Your task to perform on an android device: Do I have any events tomorrow? Image 0: 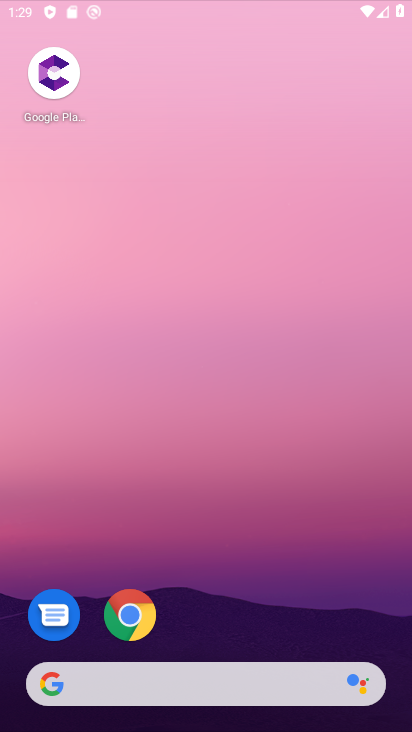
Step 0: click (51, 417)
Your task to perform on an android device: Do I have any events tomorrow? Image 1: 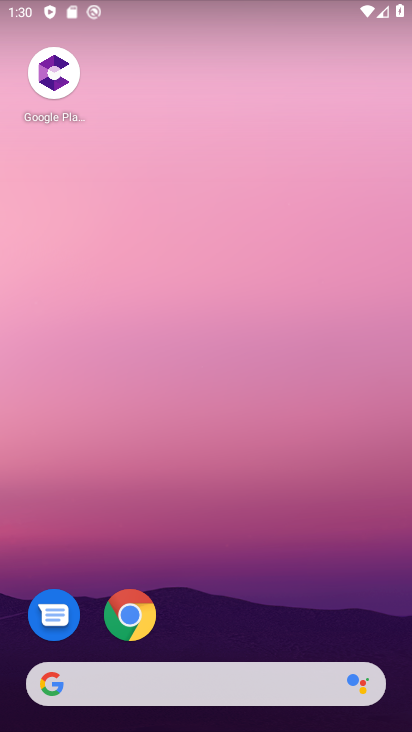
Step 1: drag from (212, 623) to (218, 135)
Your task to perform on an android device: Do I have any events tomorrow? Image 2: 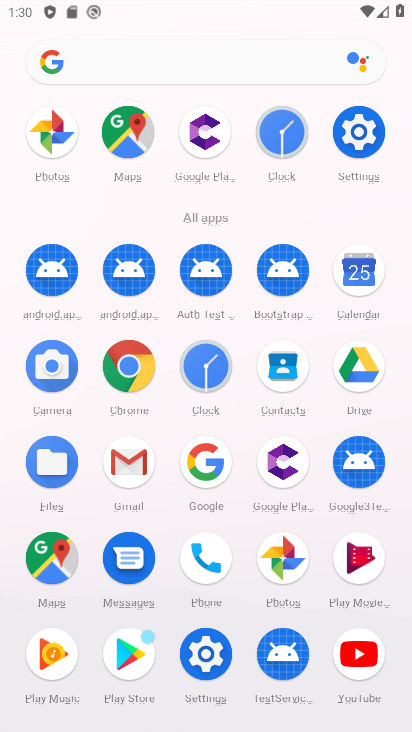
Step 2: click (366, 274)
Your task to perform on an android device: Do I have any events tomorrow? Image 3: 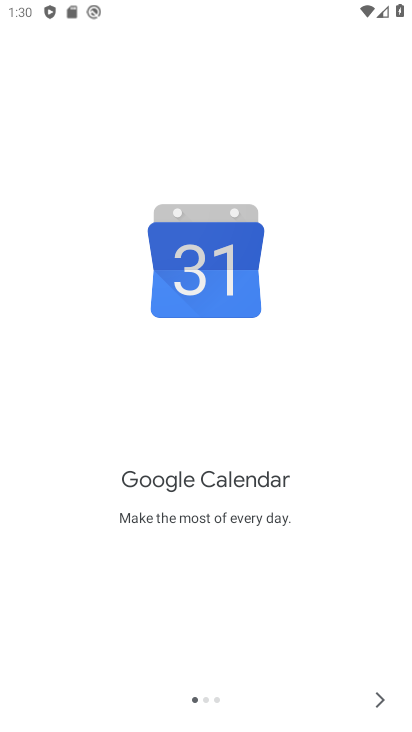
Step 3: click (379, 708)
Your task to perform on an android device: Do I have any events tomorrow? Image 4: 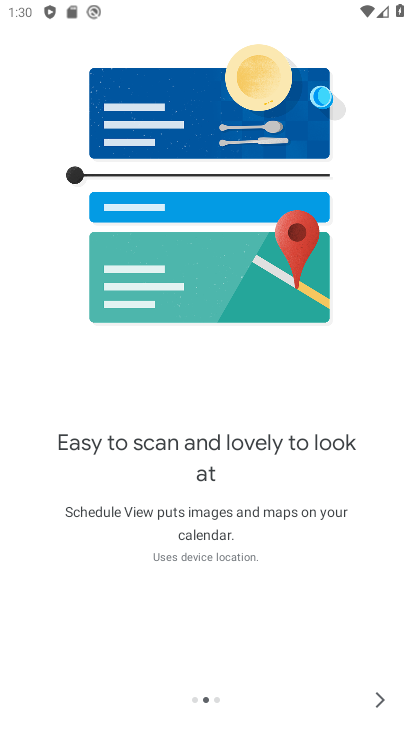
Step 4: click (379, 708)
Your task to perform on an android device: Do I have any events tomorrow? Image 5: 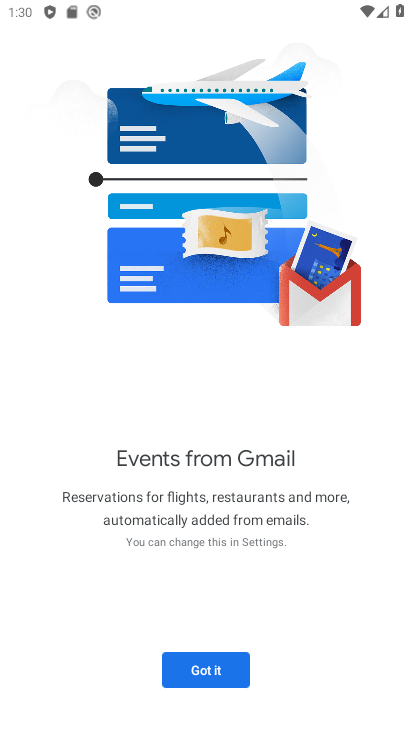
Step 5: click (218, 681)
Your task to perform on an android device: Do I have any events tomorrow? Image 6: 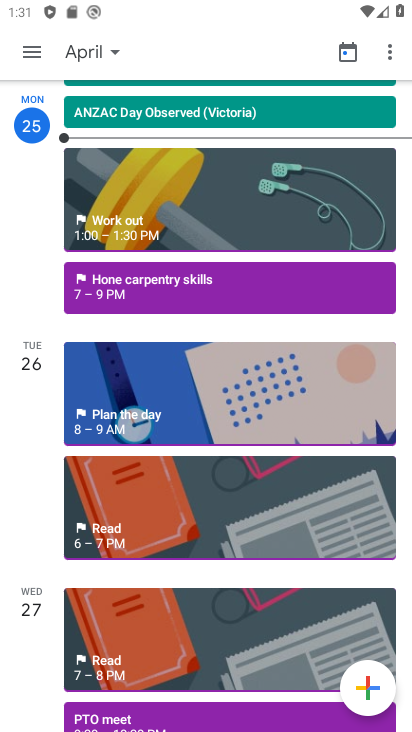
Step 6: click (20, 51)
Your task to perform on an android device: Do I have any events tomorrow? Image 7: 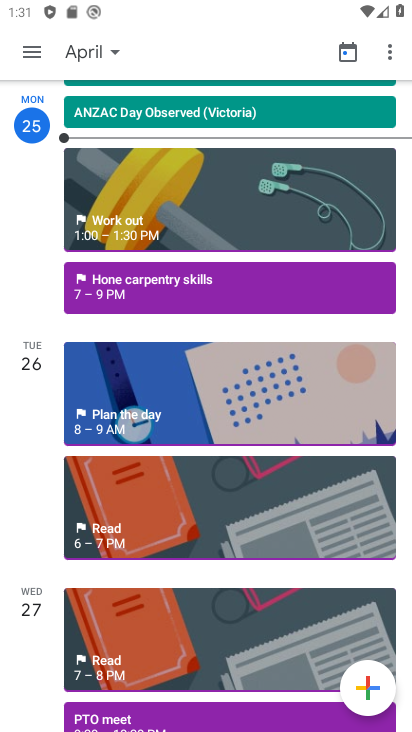
Step 7: click (27, 54)
Your task to perform on an android device: Do I have any events tomorrow? Image 8: 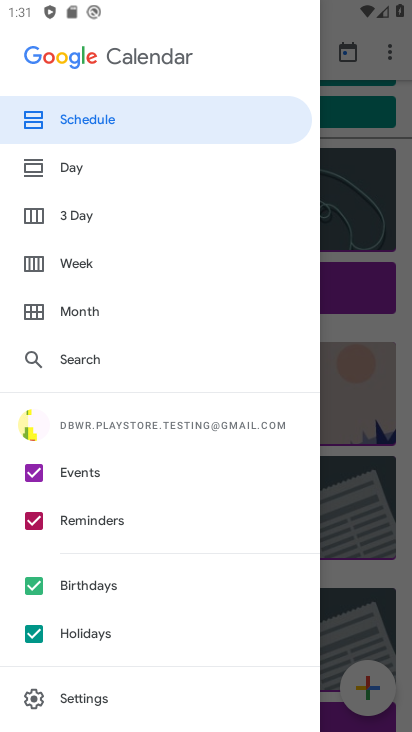
Step 8: click (34, 630)
Your task to perform on an android device: Do I have any events tomorrow? Image 9: 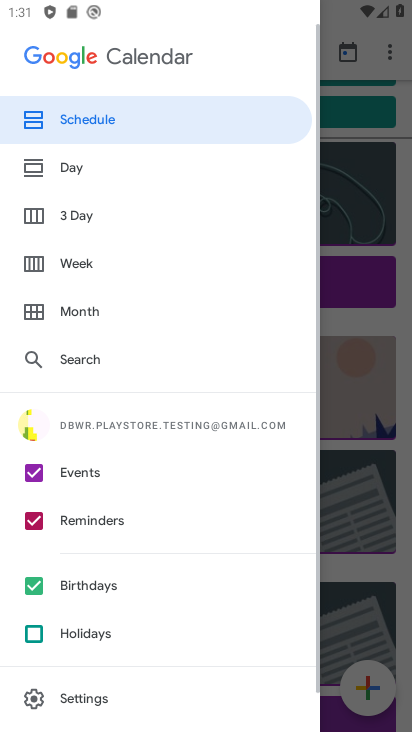
Step 9: click (36, 581)
Your task to perform on an android device: Do I have any events tomorrow? Image 10: 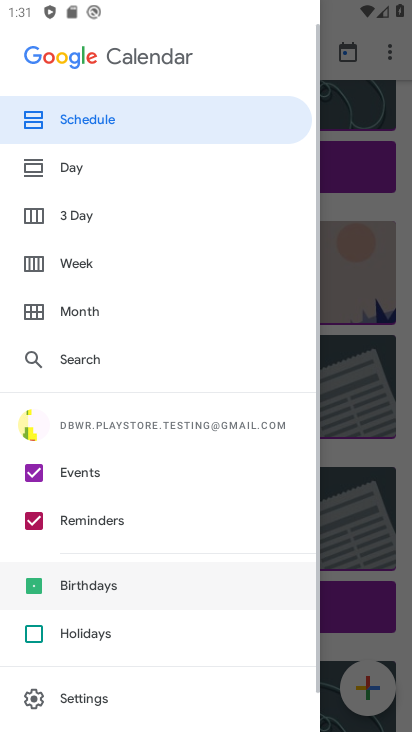
Step 10: click (34, 516)
Your task to perform on an android device: Do I have any events tomorrow? Image 11: 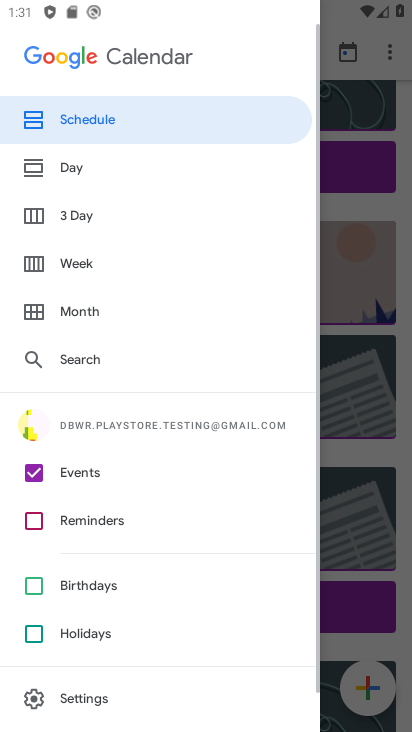
Step 11: click (137, 170)
Your task to perform on an android device: Do I have any events tomorrow? Image 12: 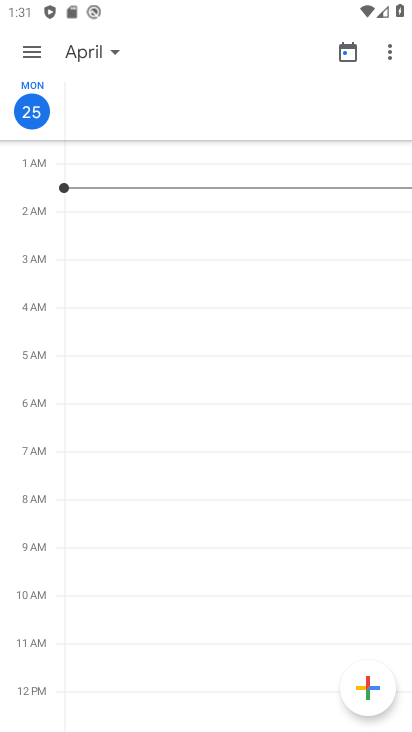
Step 12: click (106, 69)
Your task to perform on an android device: Do I have any events tomorrow? Image 13: 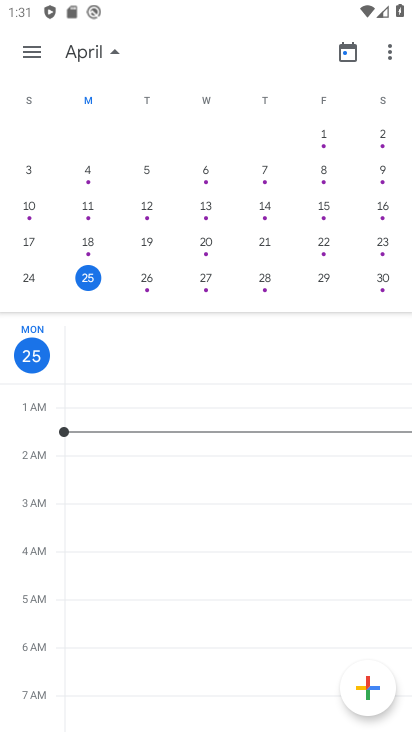
Step 13: click (153, 282)
Your task to perform on an android device: Do I have any events tomorrow? Image 14: 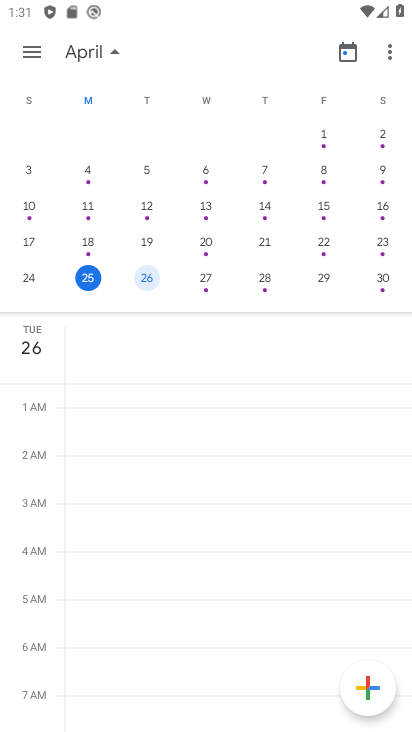
Step 14: click (111, 65)
Your task to perform on an android device: Do I have any events tomorrow? Image 15: 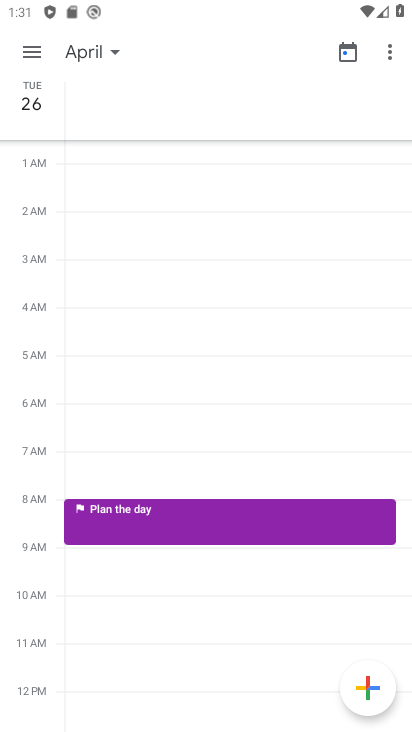
Step 15: task complete